Your task to perform on an android device: remove spam from my inbox in the gmail app Image 0: 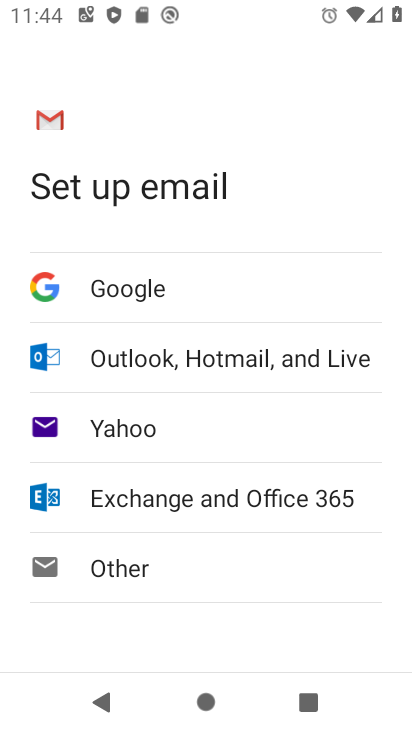
Step 0: press home button
Your task to perform on an android device: remove spam from my inbox in the gmail app Image 1: 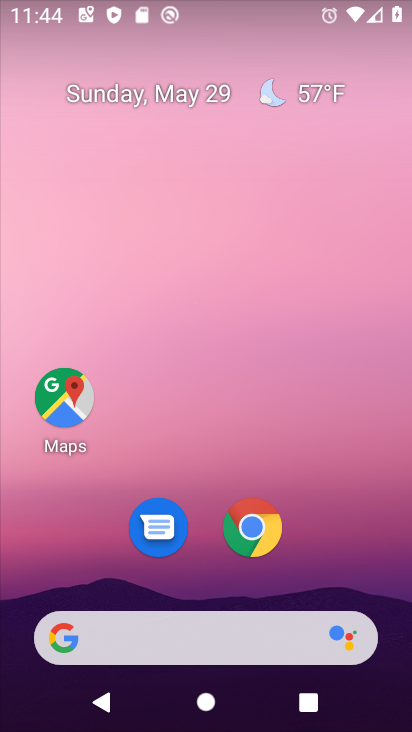
Step 1: drag from (196, 569) to (242, 115)
Your task to perform on an android device: remove spam from my inbox in the gmail app Image 2: 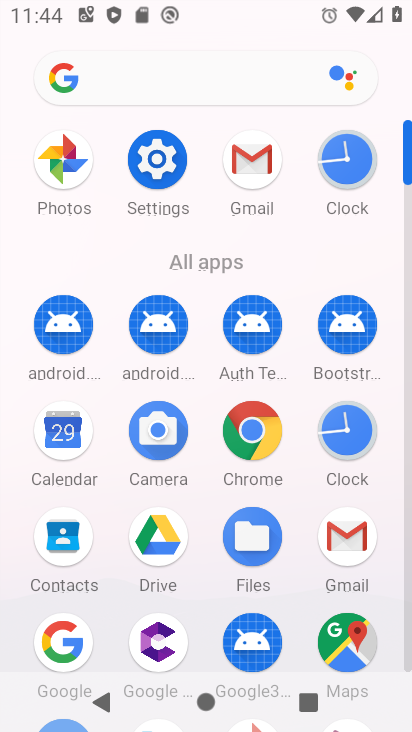
Step 2: click (257, 171)
Your task to perform on an android device: remove spam from my inbox in the gmail app Image 3: 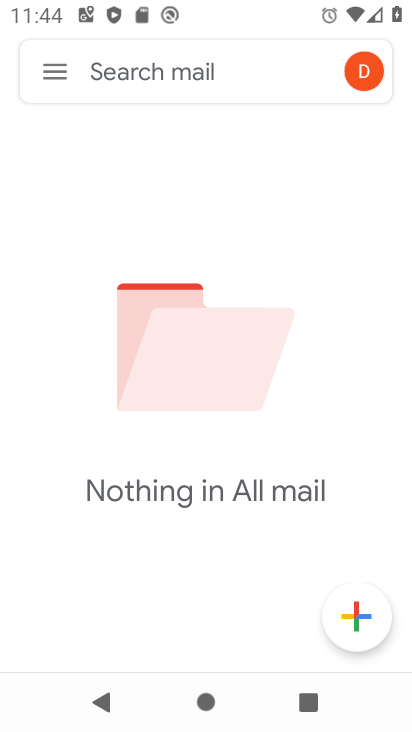
Step 3: click (75, 80)
Your task to perform on an android device: remove spam from my inbox in the gmail app Image 4: 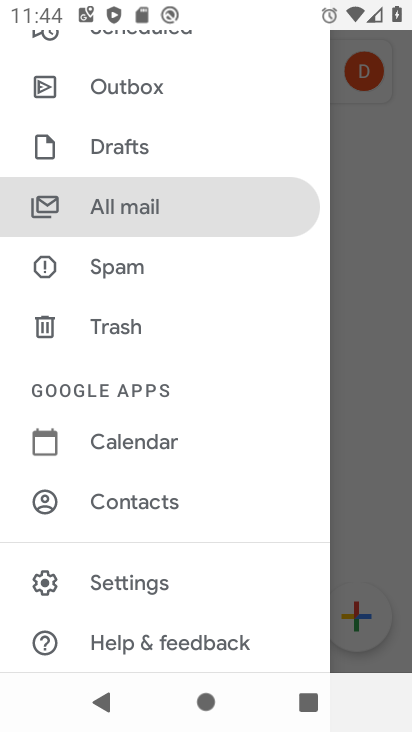
Step 4: click (160, 276)
Your task to perform on an android device: remove spam from my inbox in the gmail app Image 5: 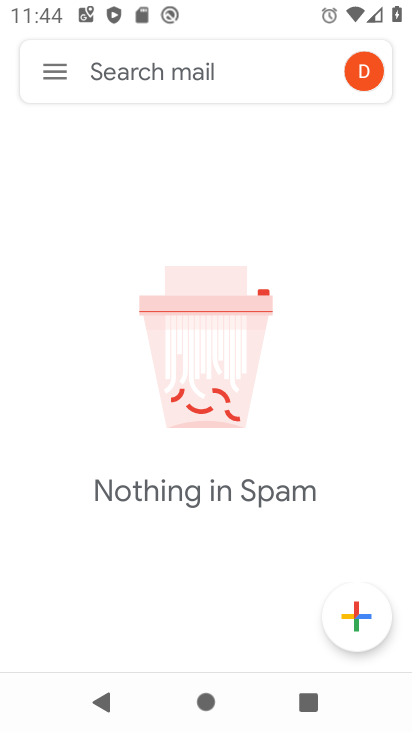
Step 5: task complete